Your task to perform on an android device: Go to display settings Image 0: 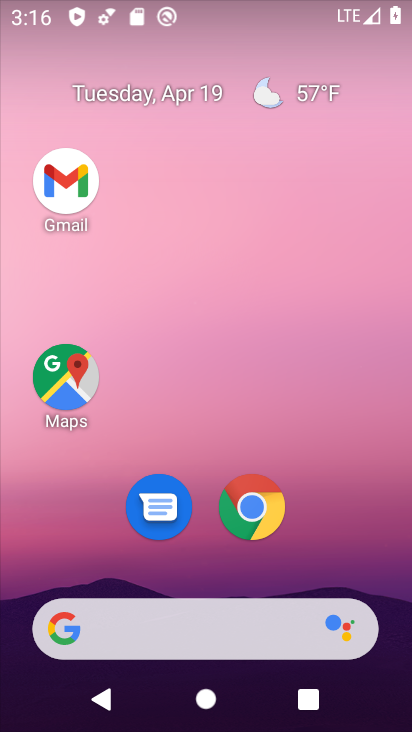
Step 0: drag from (233, 579) to (288, 82)
Your task to perform on an android device: Go to display settings Image 1: 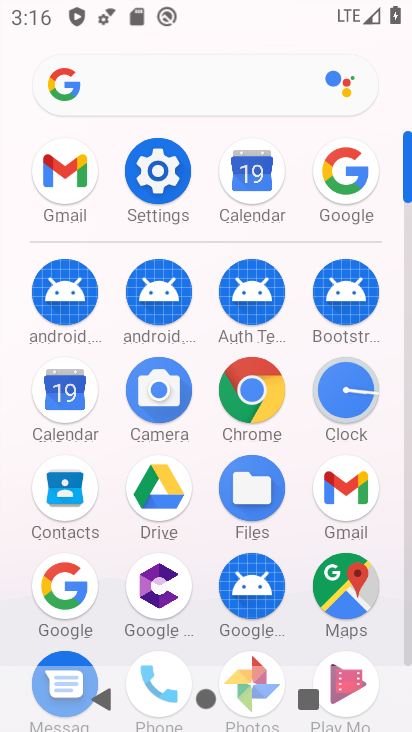
Step 1: click (147, 176)
Your task to perform on an android device: Go to display settings Image 2: 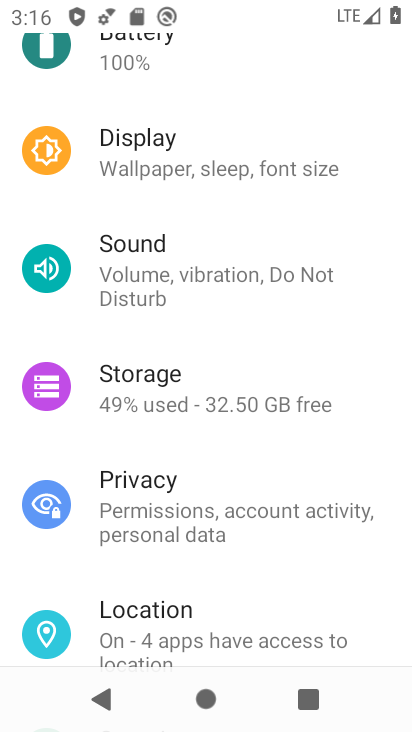
Step 2: click (184, 166)
Your task to perform on an android device: Go to display settings Image 3: 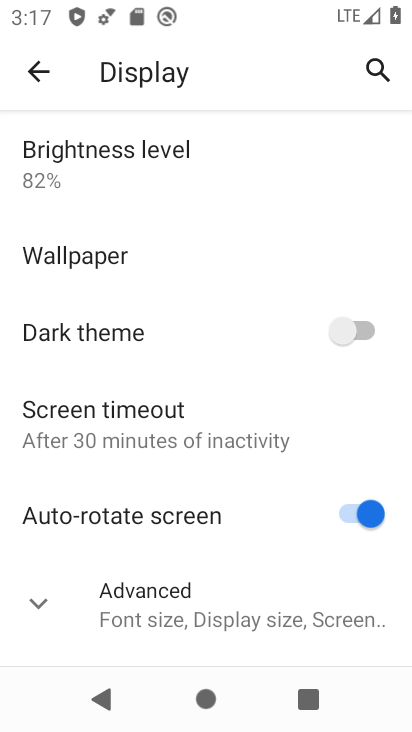
Step 3: task complete